Your task to perform on an android device: Open Chrome and go to the settings page Image 0: 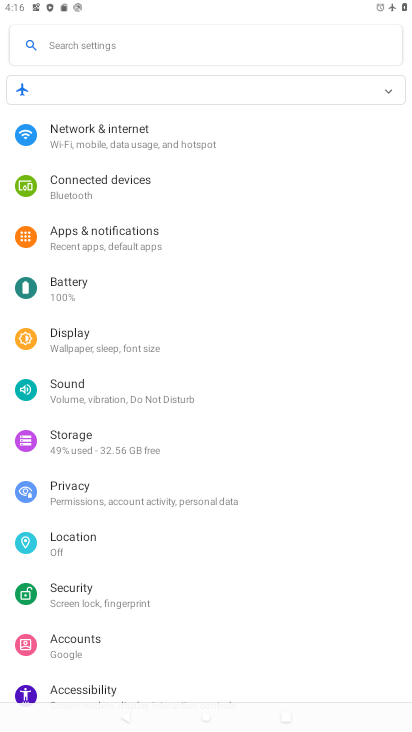
Step 0: press home button
Your task to perform on an android device: Open Chrome and go to the settings page Image 1: 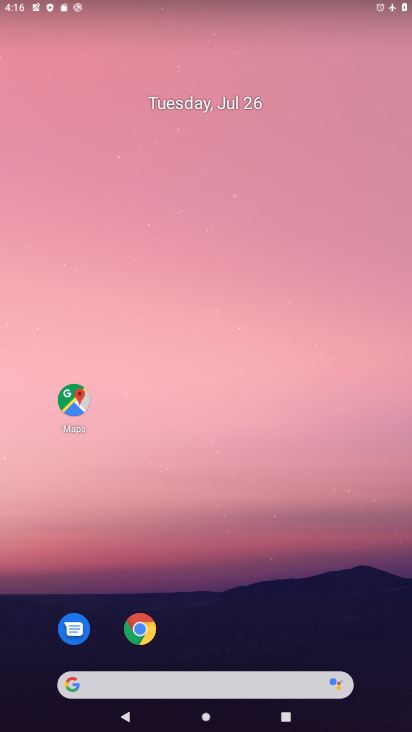
Step 1: click (143, 625)
Your task to perform on an android device: Open Chrome and go to the settings page Image 2: 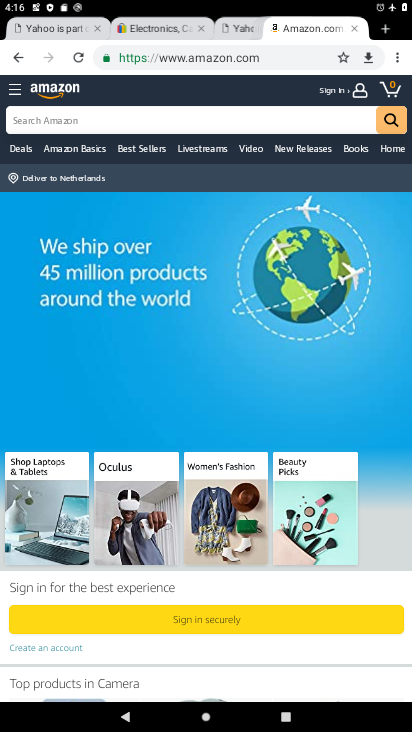
Step 2: click (398, 58)
Your task to perform on an android device: Open Chrome and go to the settings page Image 3: 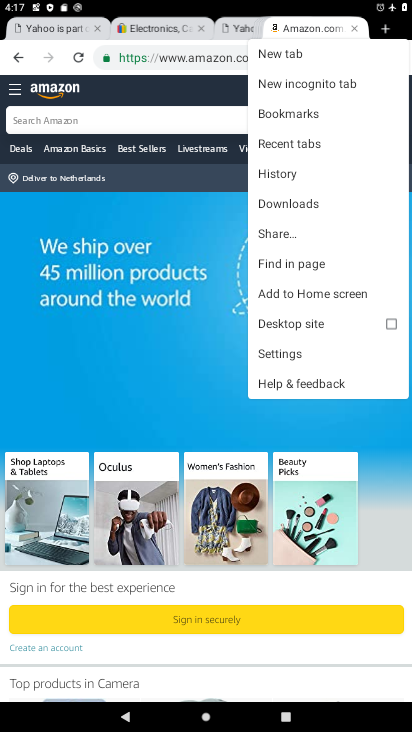
Step 3: click (279, 356)
Your task to perform on an android device: Open Chrome and go to the settings page Image 4: 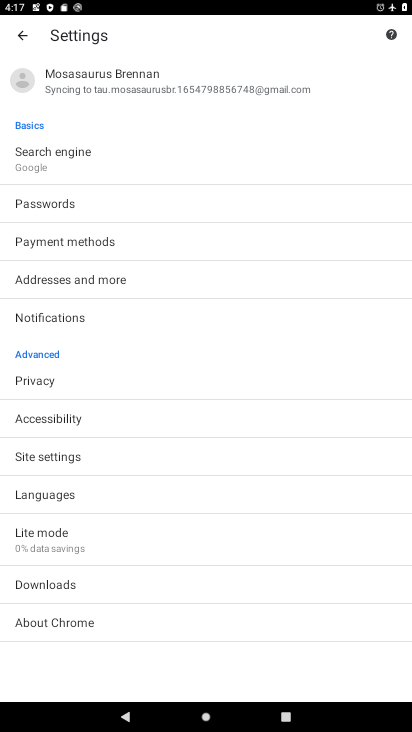
Step 4: task complete